Your task to perform on an android device: Open the calendar app, open the side menu, and click the "Day" option Image 0: 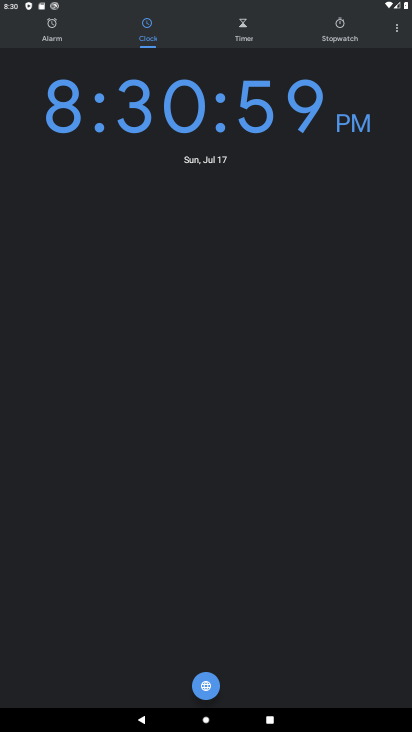
Step 0: press home button
Your task to perform on an android device: Open the calendar app, open the side menu, and click the "Day" option Image 1: 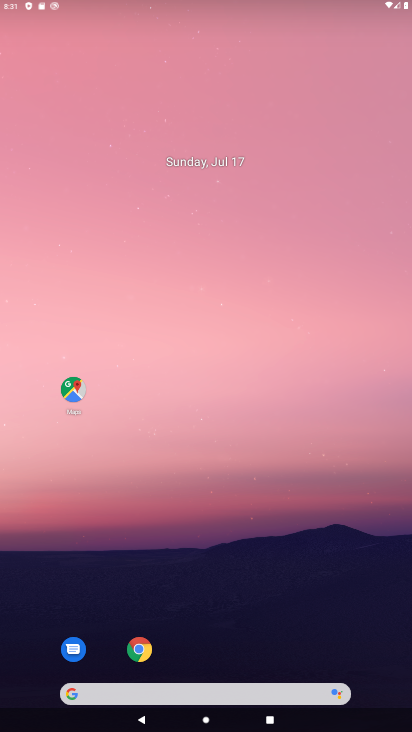
Step 1: drag from (229, 636) to (261, 115)
Your task to perform on an android device: Open the calendar app, open the side menu, and click the "Day" option Image 2: 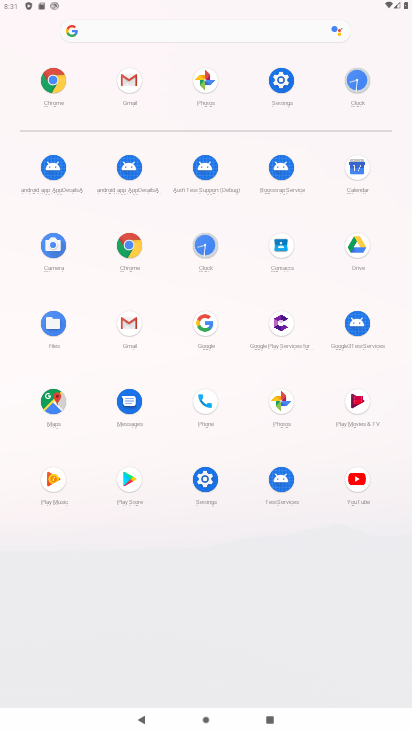
Step 2: click (352, 170)
Your task to perform on an android device: Open the calendar app, open the side menu, and click the "Day" option Image 3: 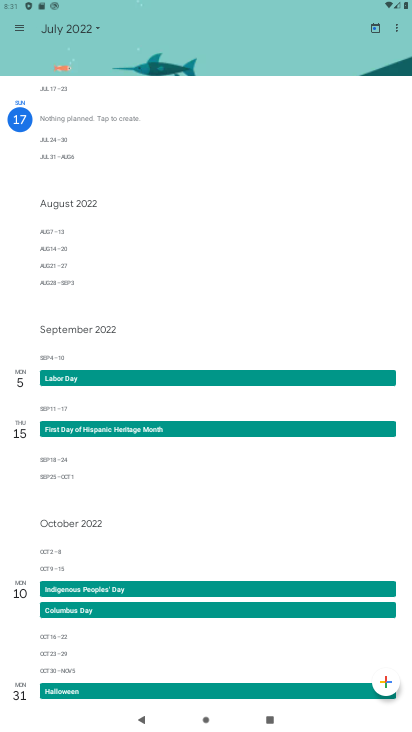
Step 3: task complete